Your task to perform on an android device: Open calendar and show me the second week of next month Image 0: 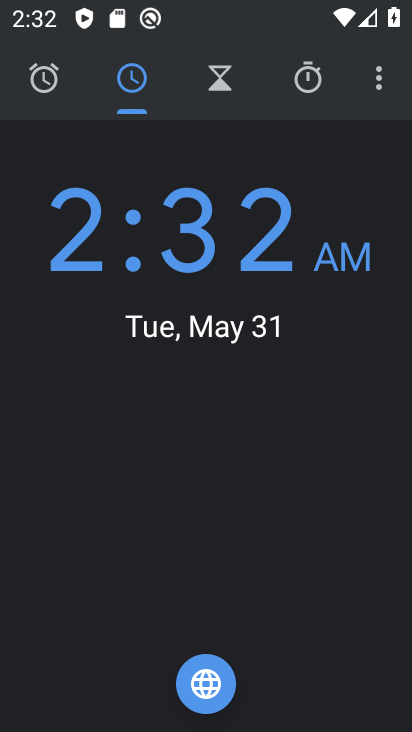
Step 0: press home button
Your task to perform on an android device: Open calendar and show me the second week of next month Image 1: 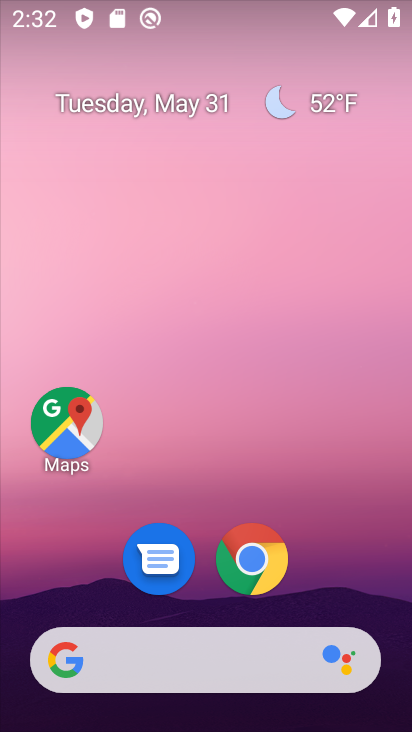
Step 1: drag from (203, 601) to (214, 147)
Your task to perform on an android device: Open calendar and show me the second week of next month Image 2: 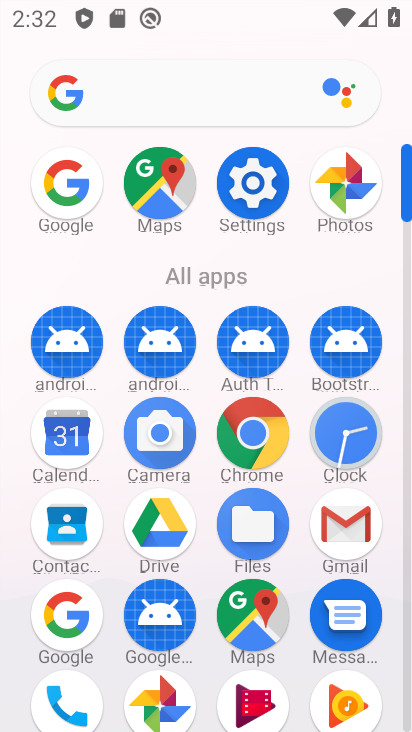
Step 2: click (61, 442)
Your task to perform on an android device: Open calendar and show me the second week of next month Image 3: 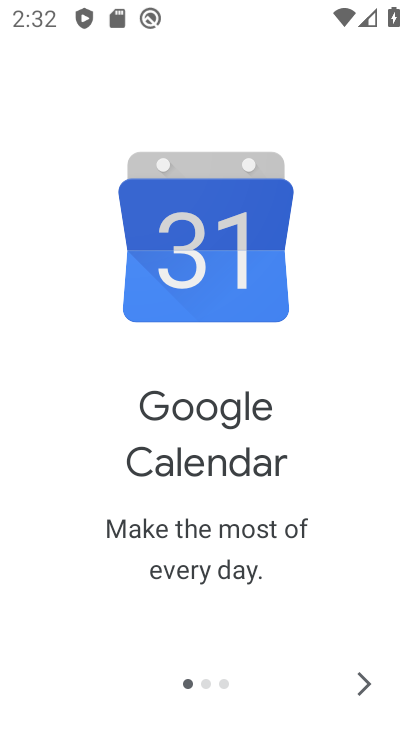
Step 3: click (373, 693)
Your task to perform on an android device: Open calendar and show me the second week of next month Image 4: 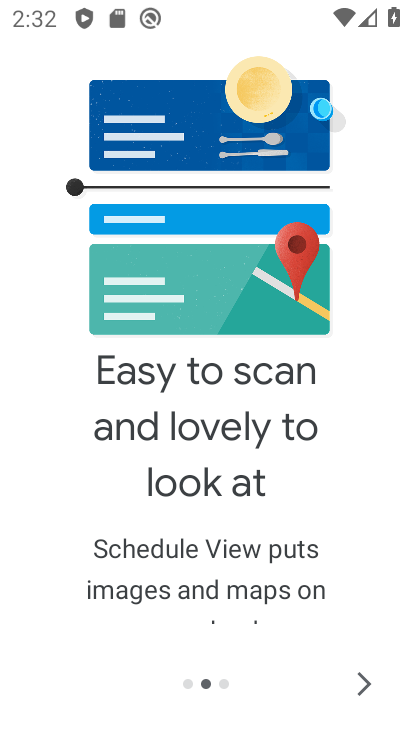
Step 4: click (373, 693)
Your task to perform on an android device: Open calendar and show me the second week of next month Image 5: 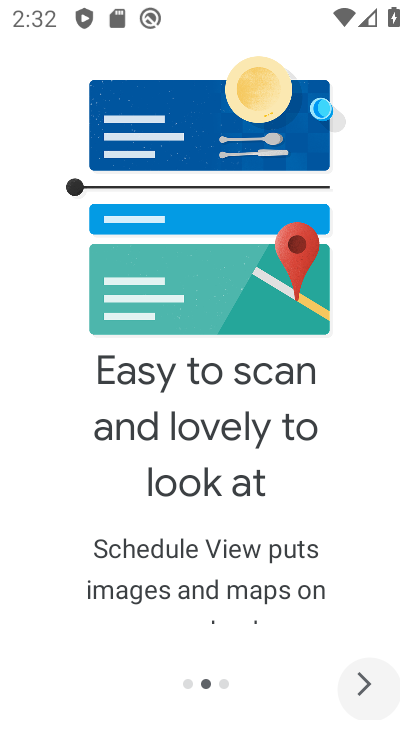
Step 5: click (372, 692)
Your task to perform on an android device: Open calendar and show me the second week of next month Image 6: 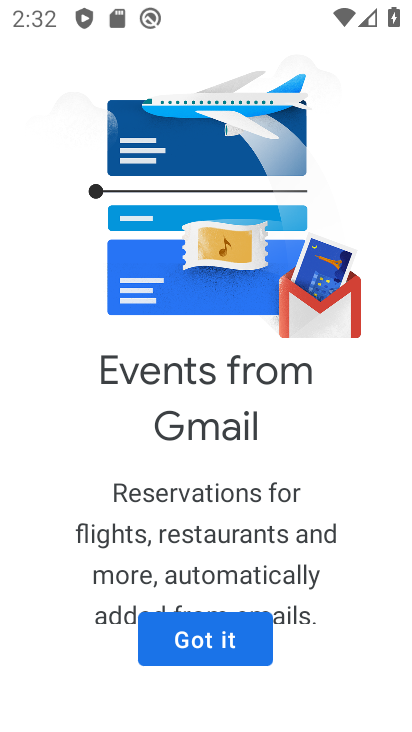
Step 6: click (199, 621)
Your task to perform on an android device: Open calendar and show me the second week of next month Image 7: 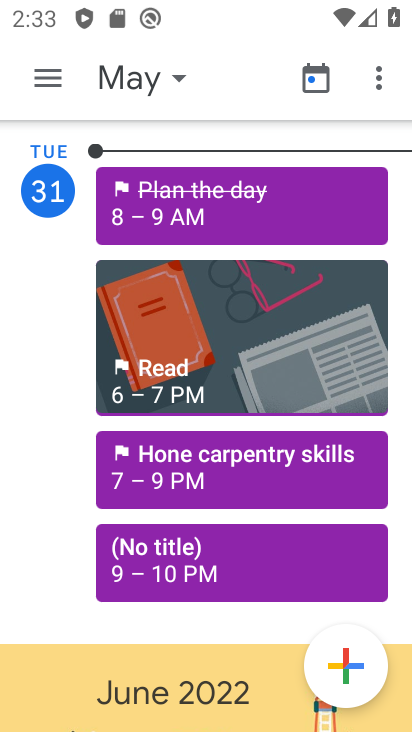
Step 7: click (157, 87)
Your task to perform on an android device: Open calendar and show me the second week of next month Image 8: 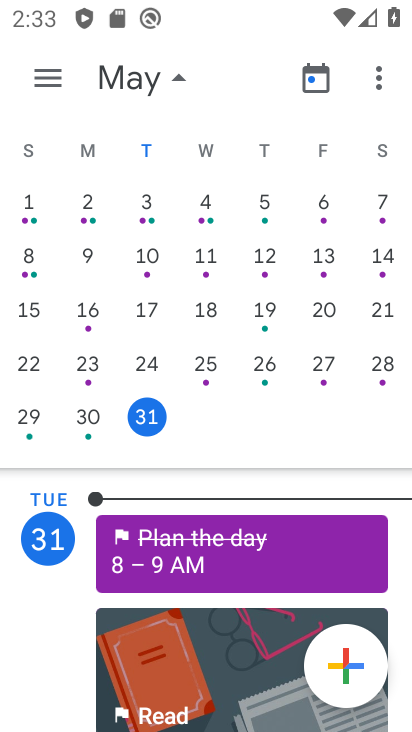
Step 8: drag from (341, 261) to (0, 283)
Your task to perform on an android device: Open calendar and show me the second week of next month Image 9: 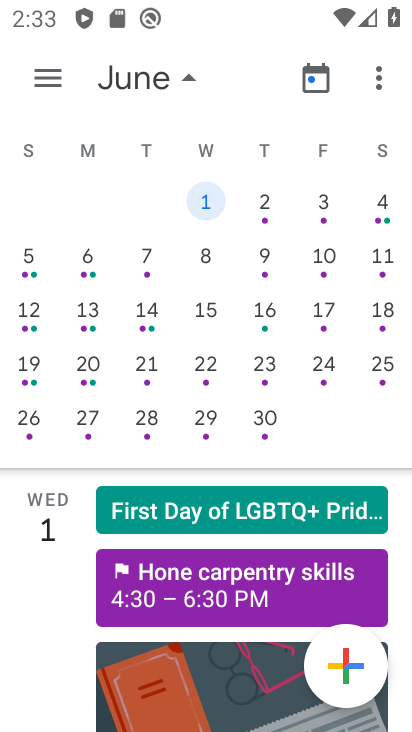
Step 9: click (31, 274)
Your task to perform on an android device: Open calendar and show me the second week of next month Image 10: 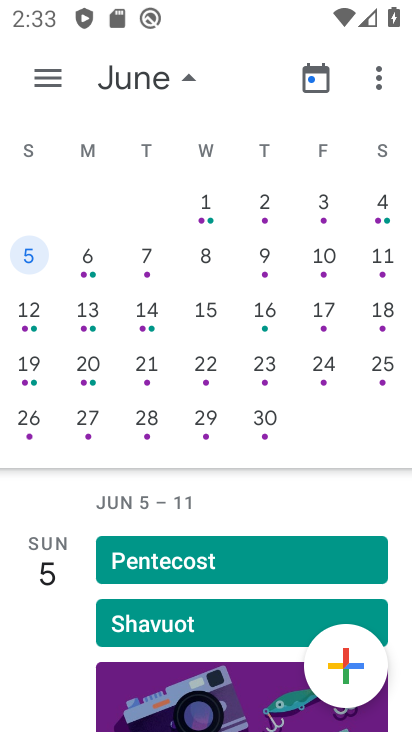
Step 10: task complete